Your task to perform on an android device: turn off airplane mode Image 0: 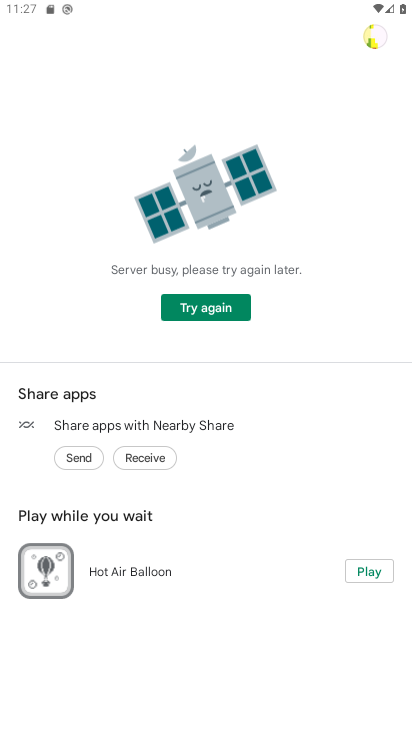
Step 0: press home button
Your task to perform on an android device: turn off airplane mode Image 1: 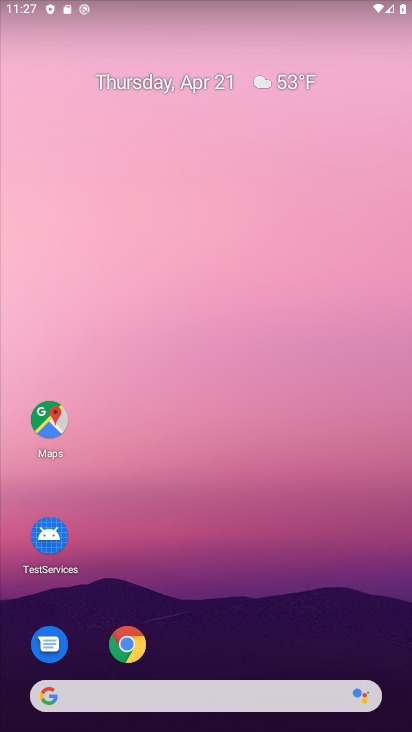
Step 1: drag from (254, 560) to (295, 123)
Your task to perform on an android device: turn off airplane mode Image 2: 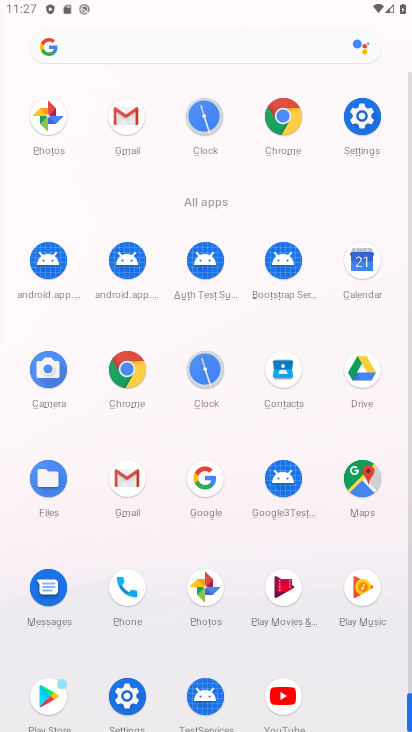
Step 2: click (365, 108)
Your task to perform on an android device: turn off airplane mode Image 3: 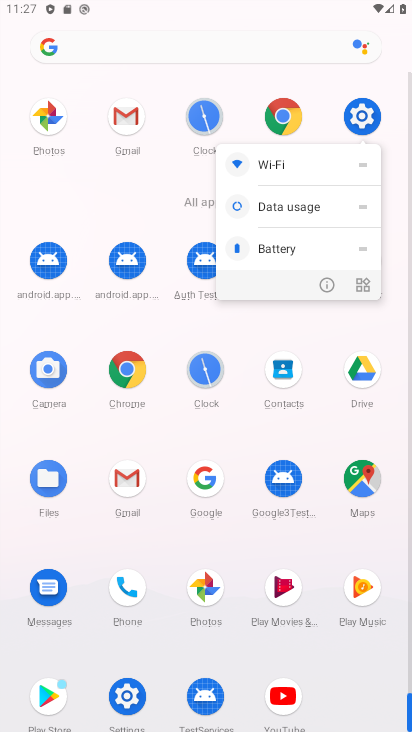
Step 3: click (359, 116)
Your task to perform on an android device: turn off airplane mode Image 4: 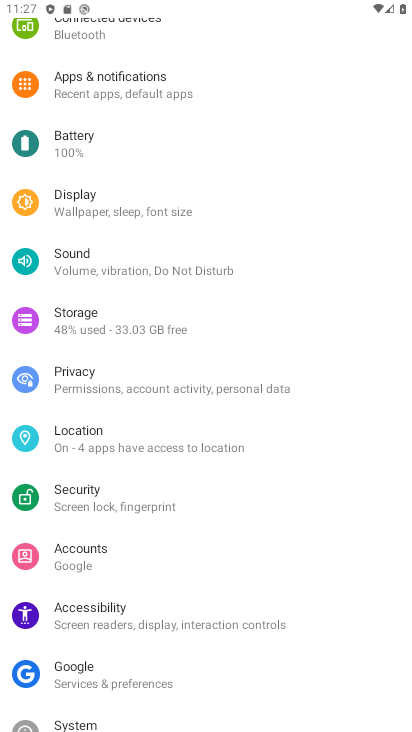
Step 4: drag from (239, 138) to (203, 656)
Your task to perform on an android device: turn off airplane mode Image 5: 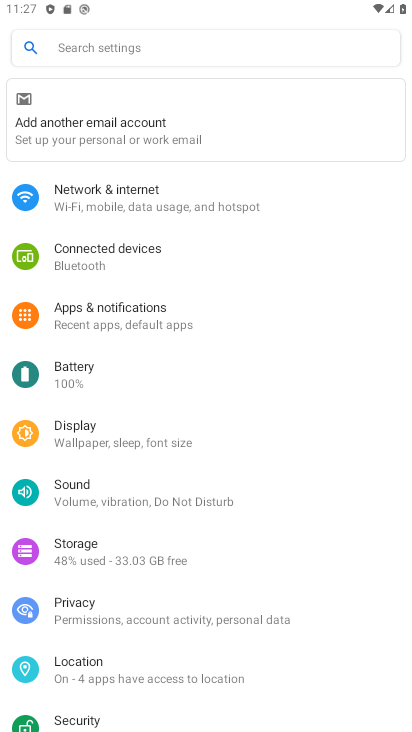
Step 5: click (154, 204)
Your task to perform on an android device: turn off airplane mode Image 6: 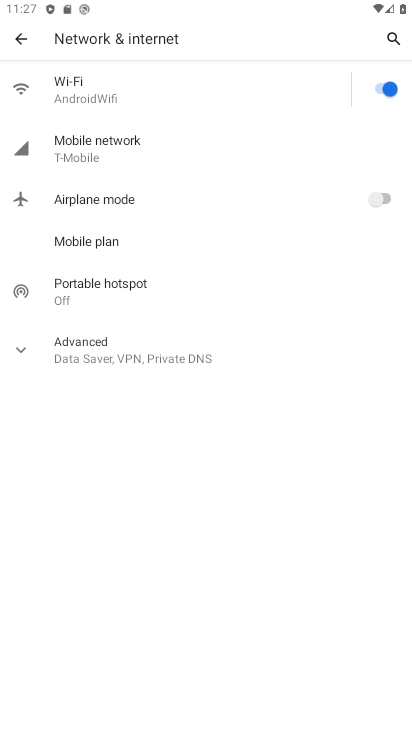
Step 6: click (149, 152)
Your task to perform on an android device: turn off airplane mode Image 7: 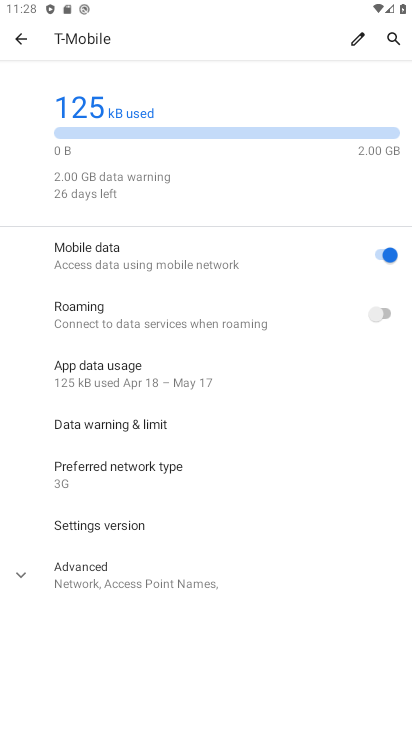
Step 7: click (15, 43)
Your task to perform on an android device: turn off airplane mode Image 8: 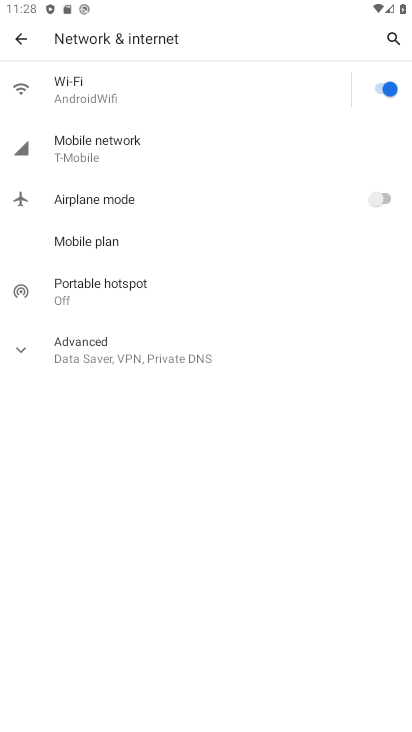
Step 8: task complete